Your task to perform on an android device: Go to wifi settings Image 0: 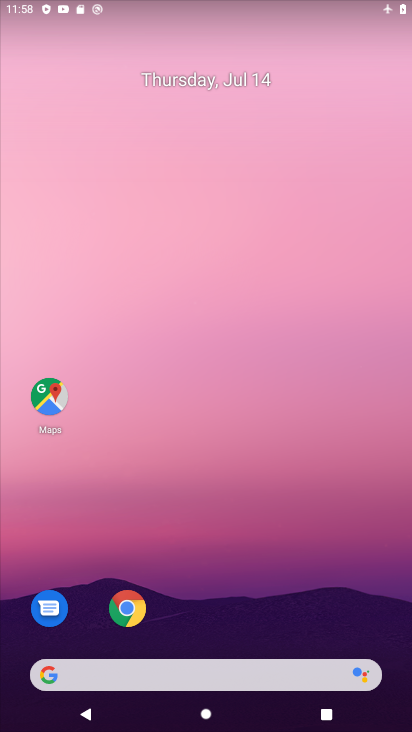
Step 0: drag from (259, 607) to (228, 172)
Your task to perform on an android device: Go to wifi settings Image 1: 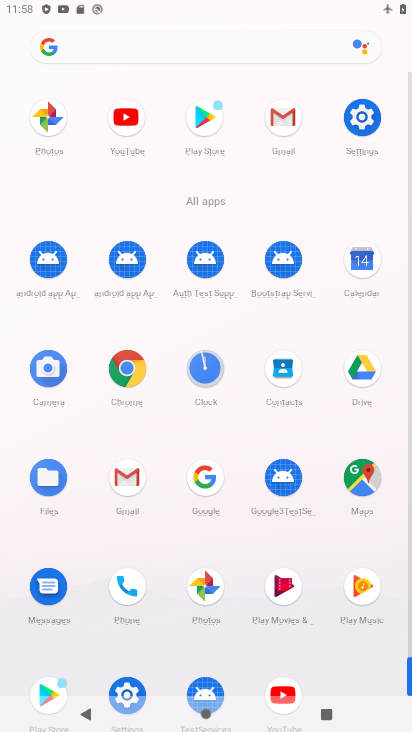
Step 1: click (363, 118)
Your task to perform on an android device: Go to wifi settings Image 2: 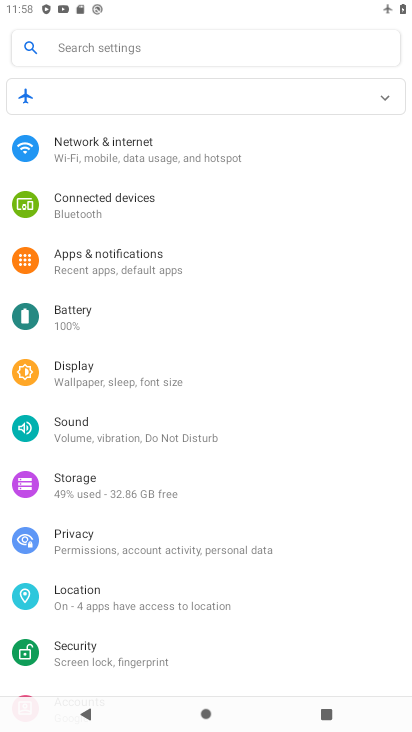
Step 2: click (150, 138)
Your task to perform on an android device: Go to wifi settings Image 3: 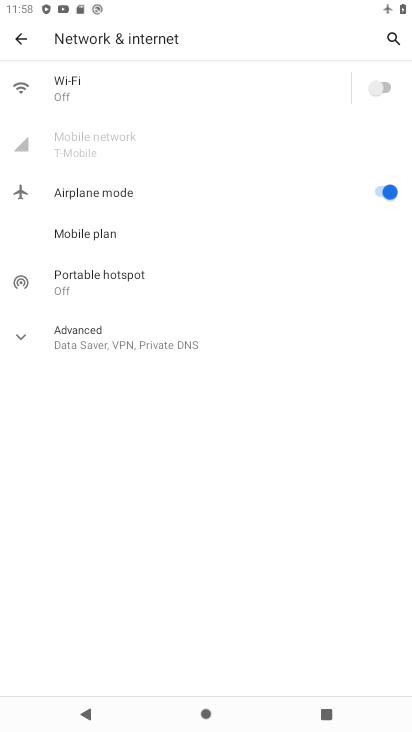
Step 3: click (120, 84)
Your task to perform on an android device: Go to wifi settings Image 4: 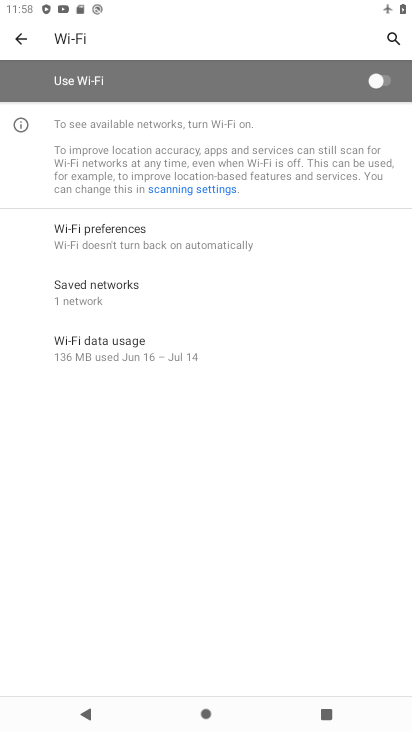
Step 4: click (384, 73)
Your task to perform on an android device: Go to wifi settings Image 5: 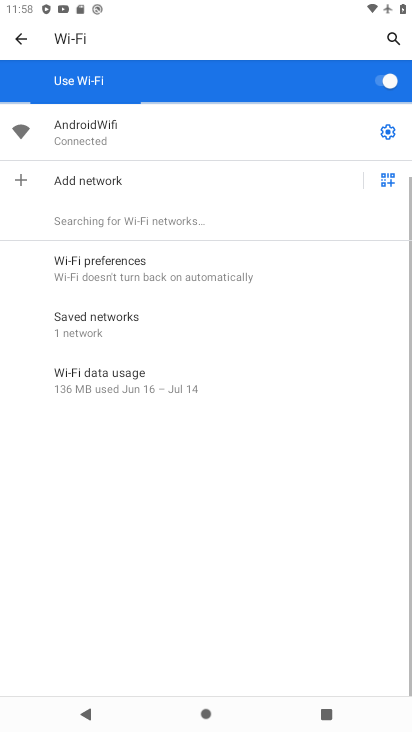
Step 5: click (307, 137)
Your task to perform on an android device: Go to wifi settings Image 6: 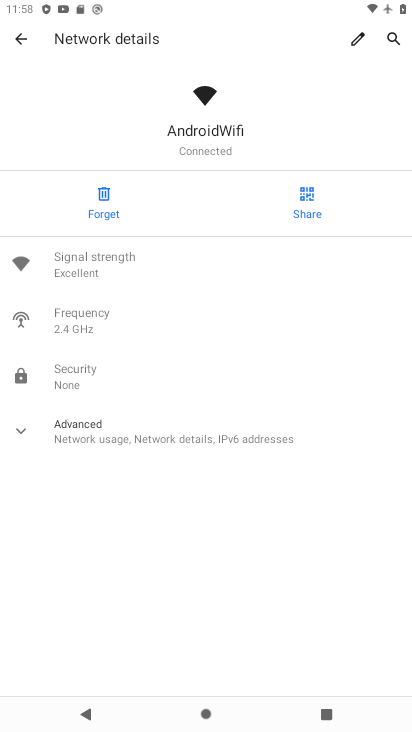
Step 6: task complete